Your task to perform on an android device: When is my next meeting? Image 0: 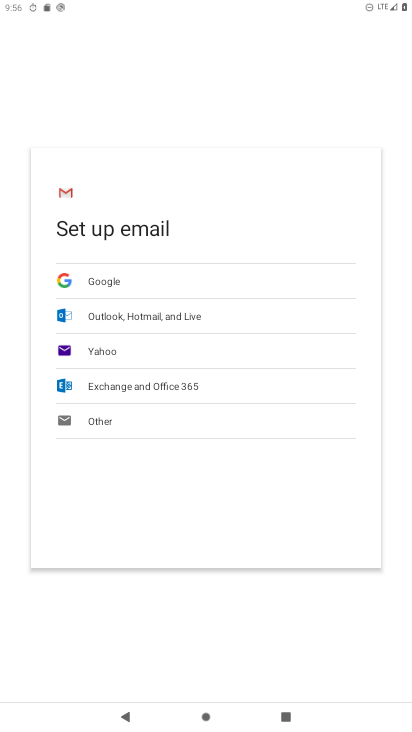
Step 0: press home button
Your task to perform on an android device: When is my next meeting? Image 1: 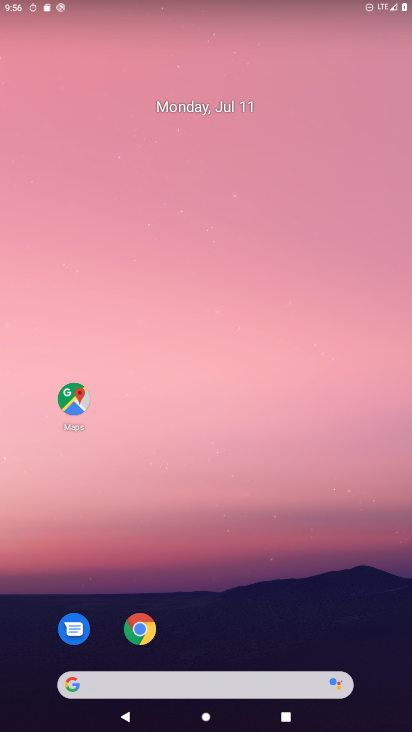
Step 1: click (195, 94)
Your task to perform on an android device: When is my next meeting? Image 2: 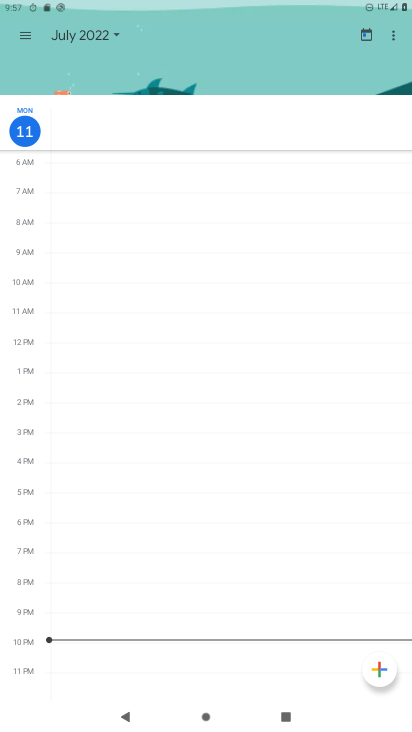
Step 2: task complete